Your task to perform on an android device: Open calendar and show me the fourth week of next month Image 0: 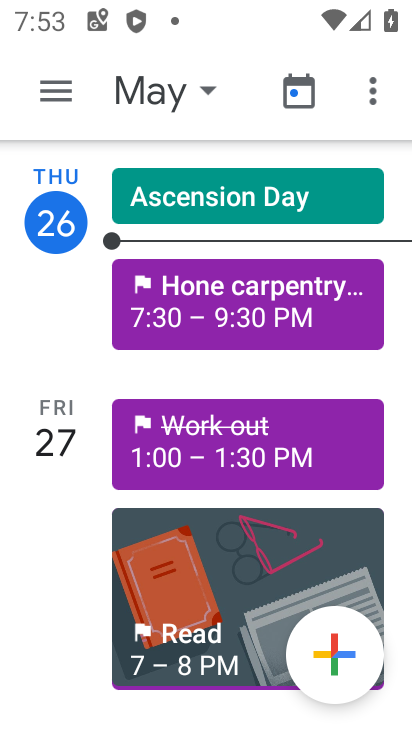
Step 0: click (65, 86)
Your task to perform on an android device: Open calendar and show me the fourth week of next month Image 1: 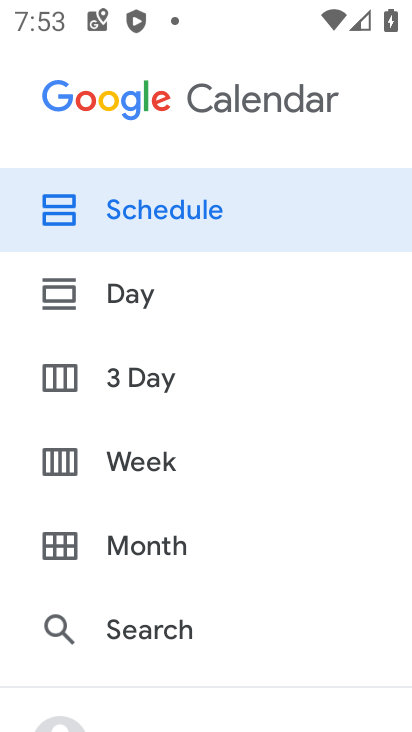
Step 1: click (156, 459)
Your task to perform on an android device: Open calendar and show me the fourth week of next month Image 2: 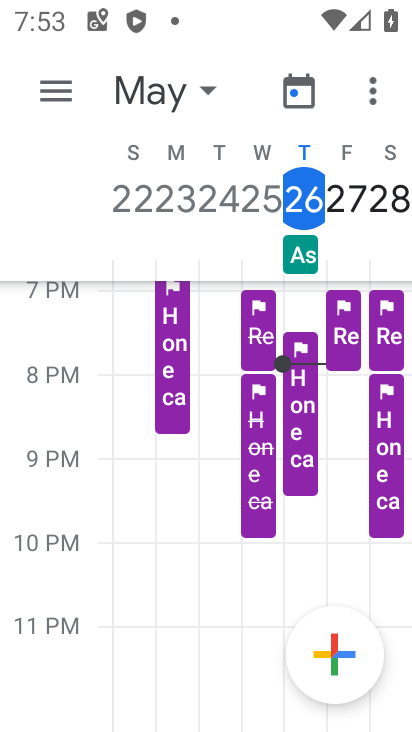
Step 2: click (167, 91)
Your task to perform on an android device: Open calendar and show me the fourth week of next month Image 3: 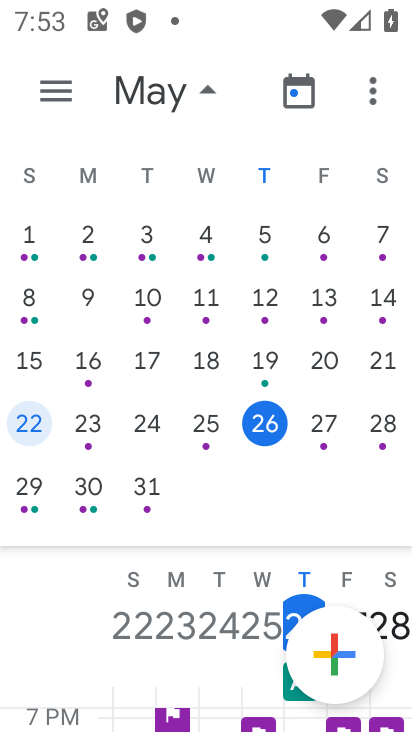
Step 3: drag from (367, 432) to (80, 410)
Your task to perform on an android device: Open calendar and show me the fourth week of next month Image 4: 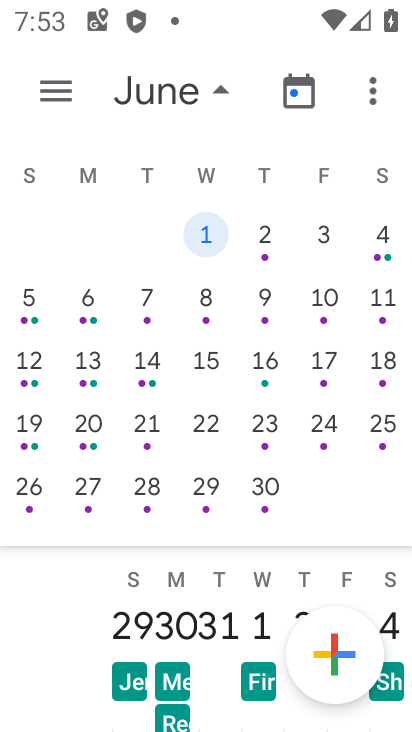
Step 4: click (87, 482)
Your task to perform on an android device: Open calendar and show me the fourth week of next month Image 5: 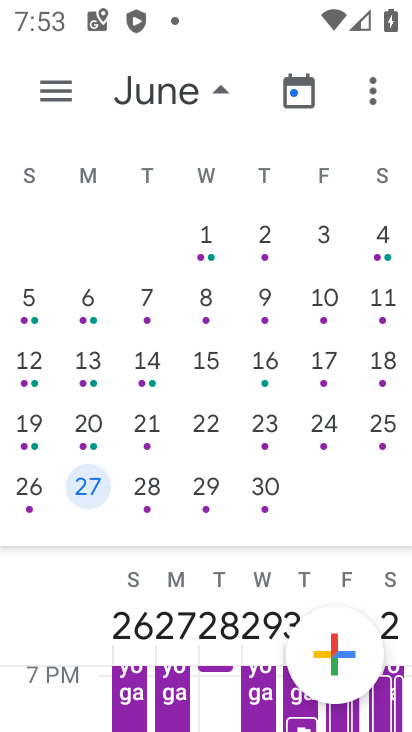
Step 5: click (220, 93)
Your task to perform on an android device: Open calendar and show me the fourth week of next month Image 6: 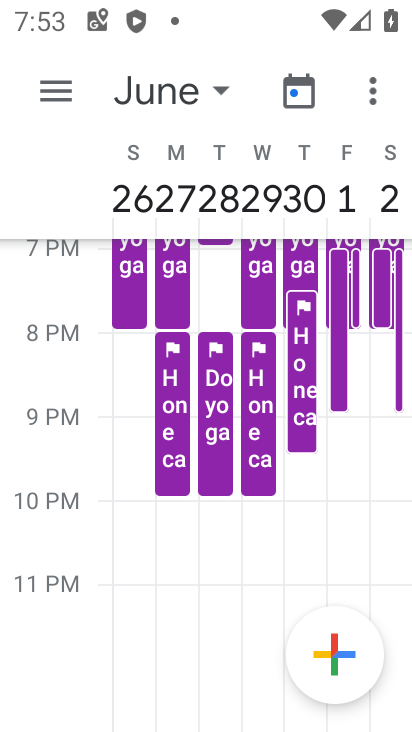
Step 6: task complete